Your task to perform on an android device: Find coffee shops on Maps Image 0: 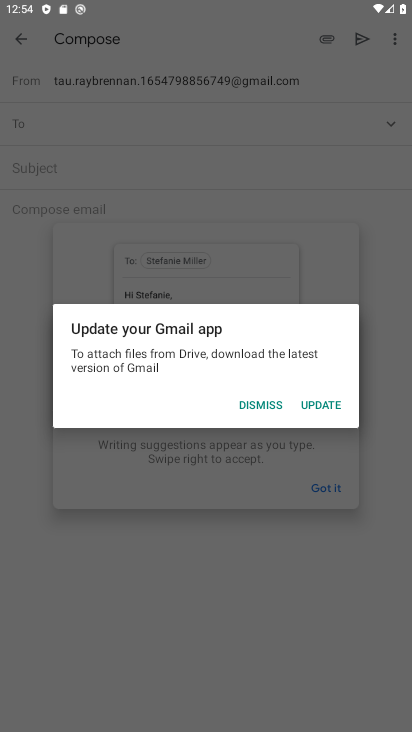
Step 0: press home button
Your task to perform on an android device: Find coffee shops on Maps Image 1: 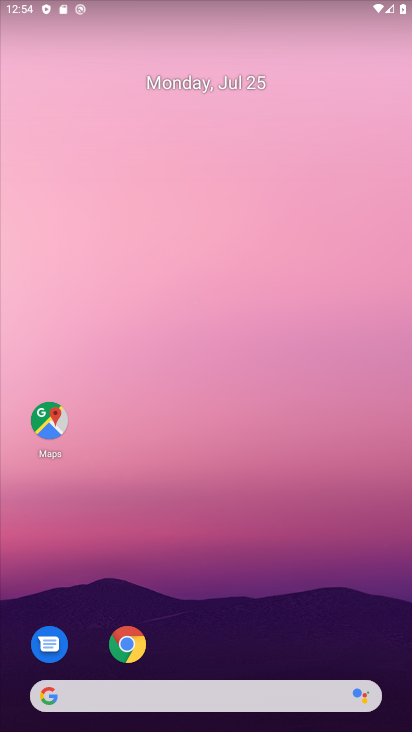
Step 1: drag from (254, 635) to (271, 49)
Your task to perform on an android device: Find coffee shops on Maps Image 2: 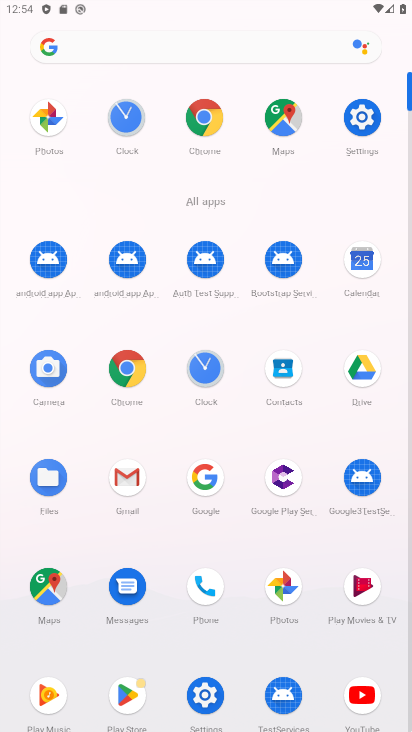
Step 2: click (283, 107)
Your task to perform on an android device: Find coffee shops on Maps Image 3: 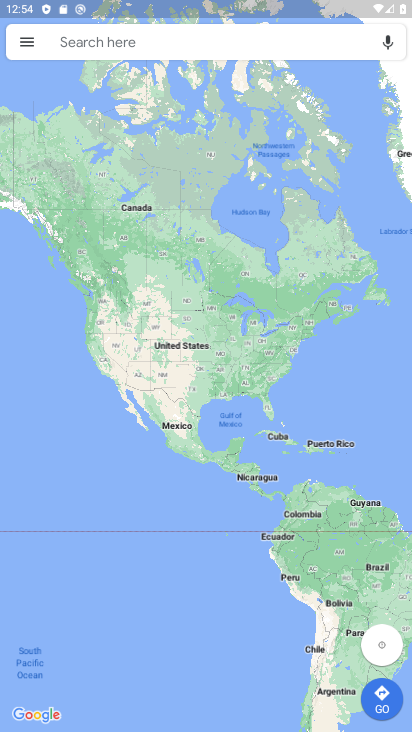
Step 3: click (127, 51)
Your task to perform on an android device: Find coffee shops on Maps Image 4: 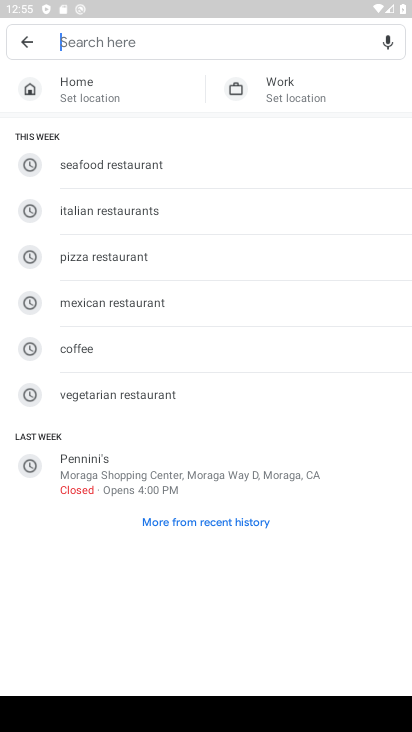
Step 4: type "coffee shops"
Your task to perform on an android device: Find coffee shops on Maps Image 5: 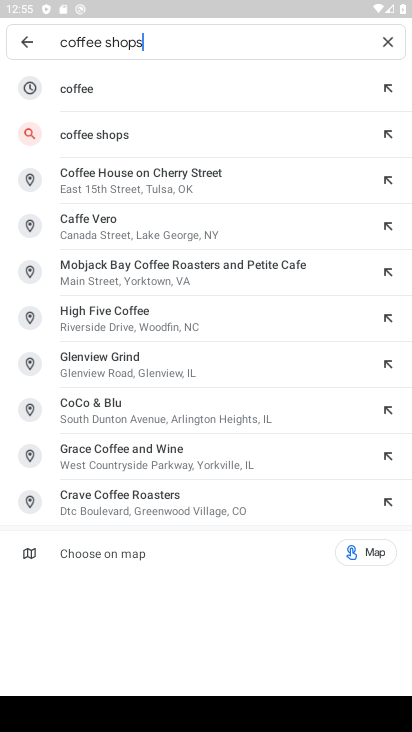
Step 5: click (179, 134)
Your task to perform on an android device: Find coffee shops on Maps Image 6: 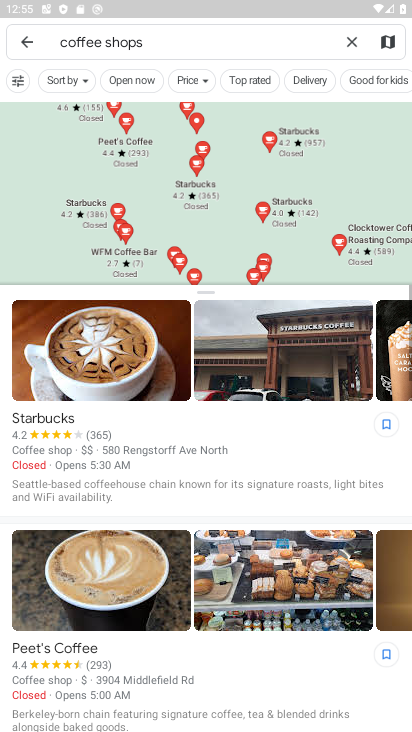
Step 6: task complete